Your task to perform on an android device: check storage Image 0: 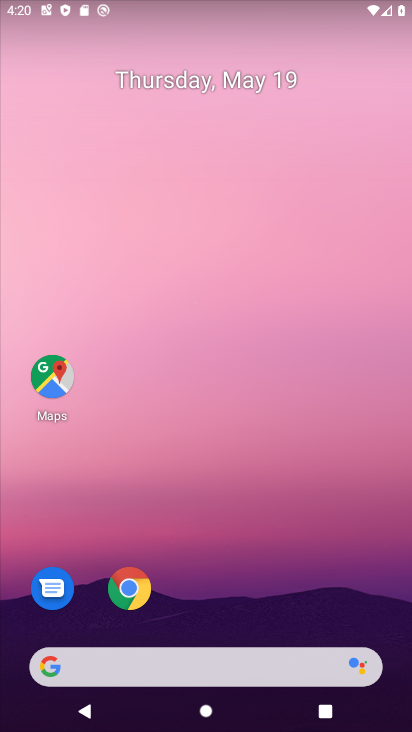
Step 0: drag from (188, 616) to (213, 68)
Your task to perform on an android device: check storage Image 1: 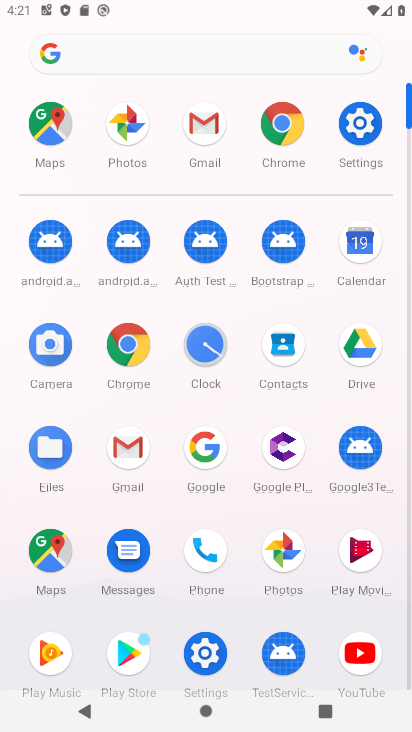
Step 1: click (370, 124)
Your task to perform on an android device: check storage Image 2: 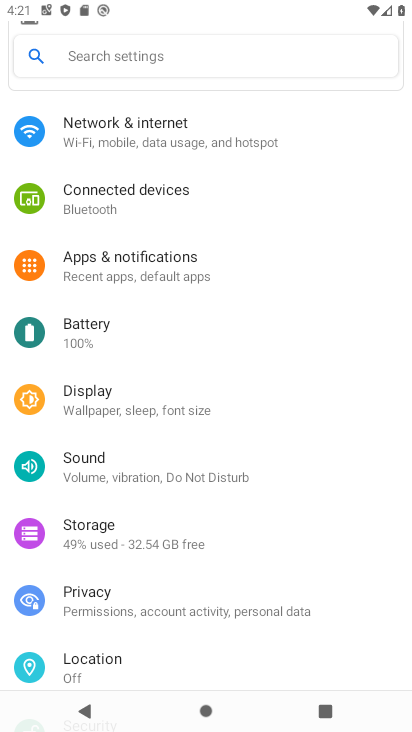
Step 2: click (101, 537)
Your task to perform on an android device: check storage Image 3: 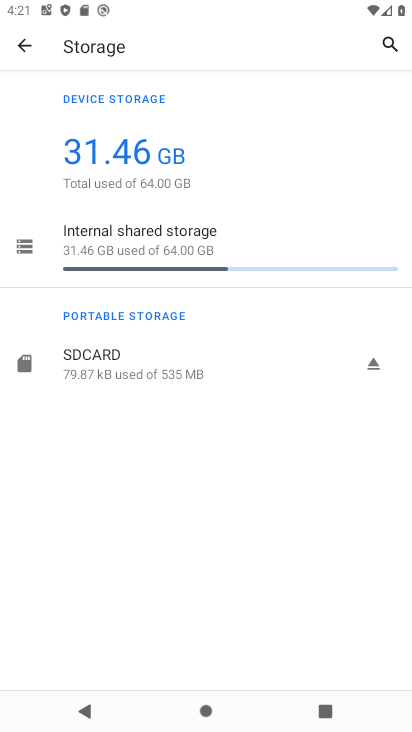
Step 3: task complete